Your task to perform on an android device: Check the weather Image 0: 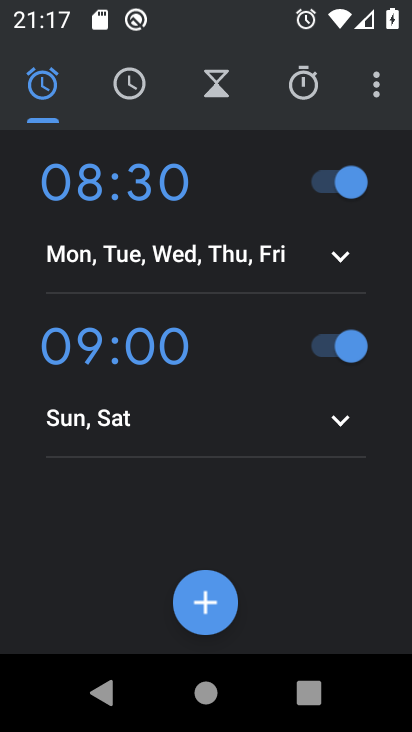
Step 0: press home button
Your task to perform on an android device: Check the weather Image 1: 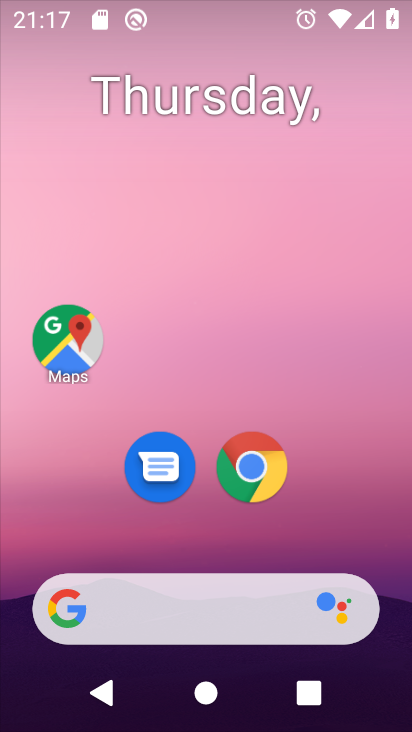
Step 1: click (242, 447)
Your task to perform on an android device: Check the weather Image 2: 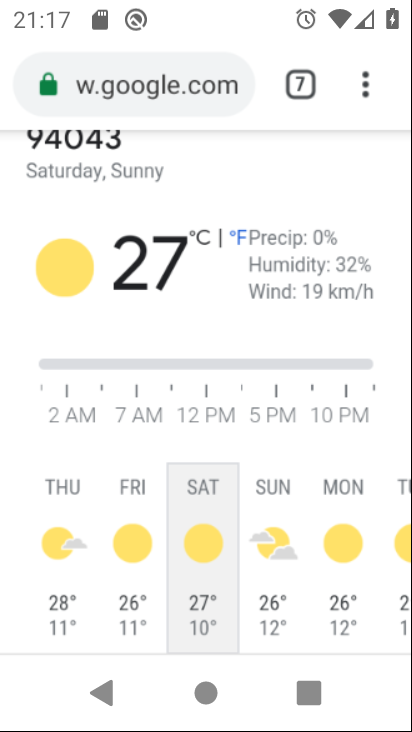
Step 2: click (362, 91)
Your task to perform on an android device: Check the weather Image 3: 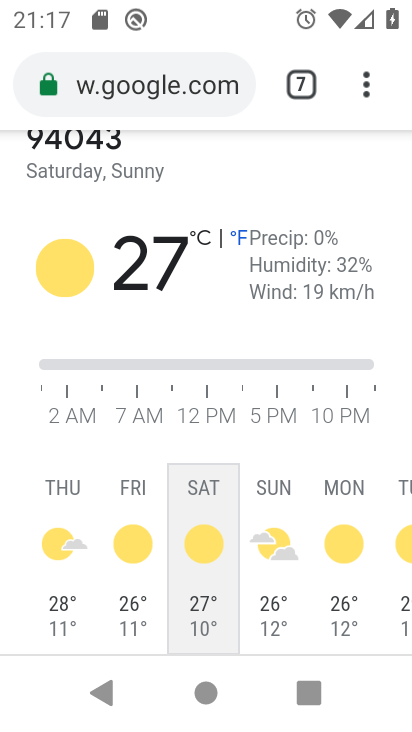
Step 3: click (364, 78)
Your task to perform on an android device: Check the weather Image 4: 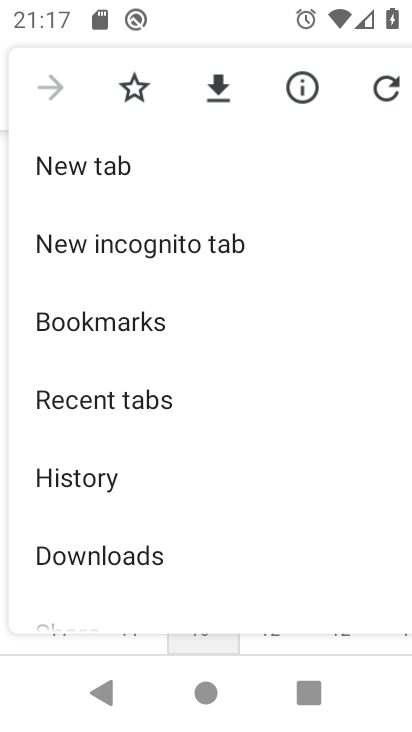
Step 4: click (83, 170)
Your task to perform on an android device: Check the weather Image 5: 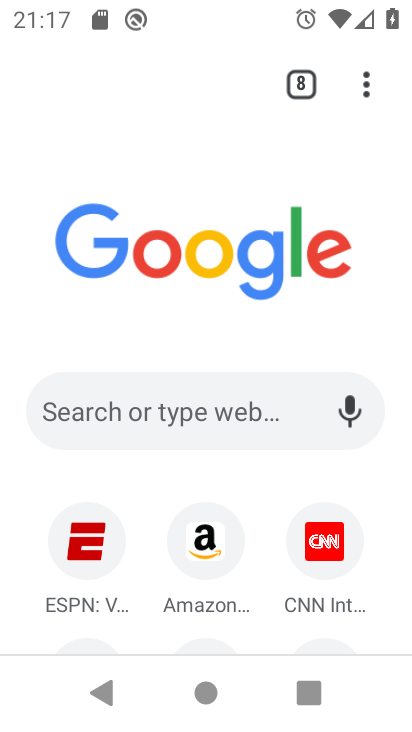
Step 5: click (193, 409)
Your task to perform on an android device: Check the weather Image 6: 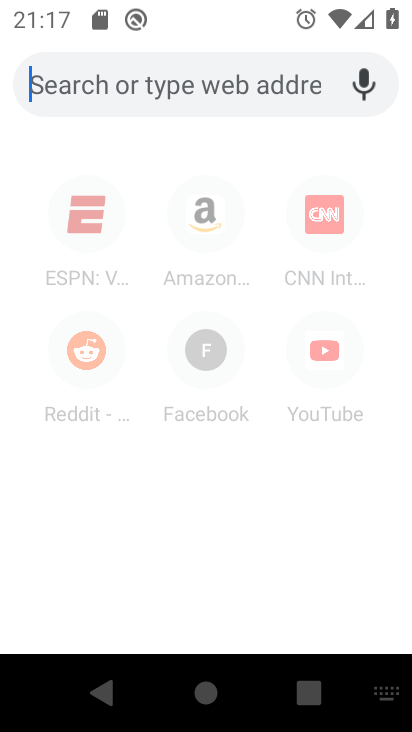
Step 6: type "Check the weather"
Your task to perform on an android device: Check the weather Image 7: 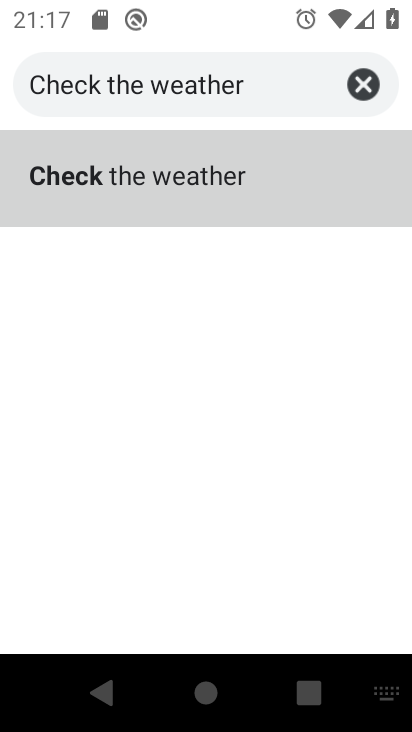
Step 7: click (206, 172)
Your task to perform on an android device: Check the weather Image 8: 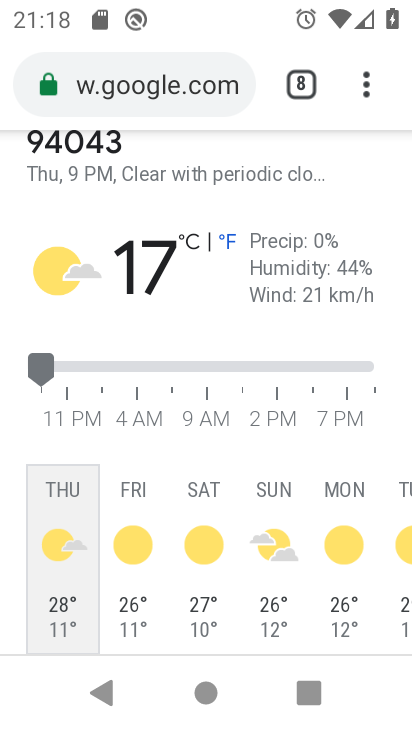
Step 8: task complete